Your task to perform on an android device: read, delete, or share a saved page in the chrome app Image 0: 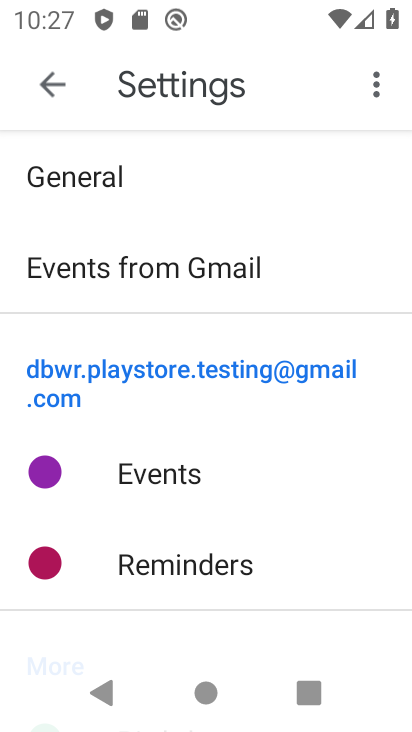
Step 0: press home button
Your task to perform on an android device: read, delete, or share a saved page in the chrome app Image 1: 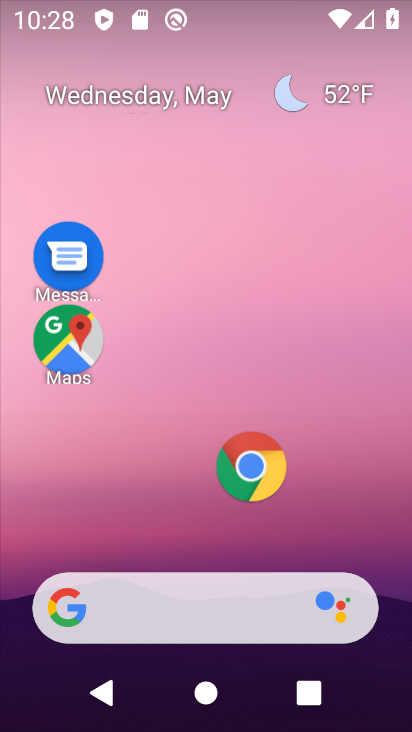
Step 1: click (255, 465)
Your task to perform on an android device: read, delete, or share a saved page in the chrome app Image 2: 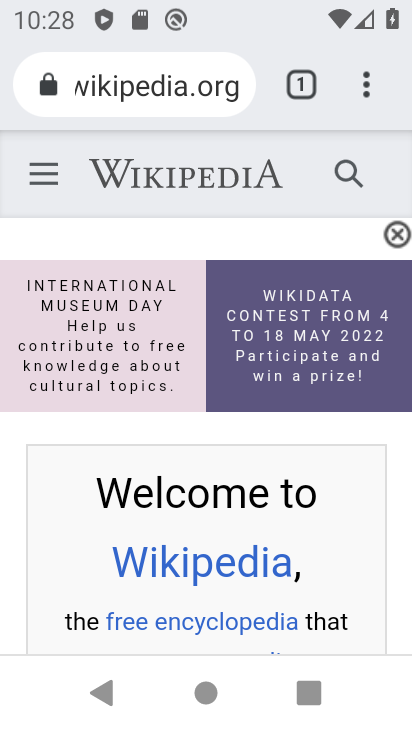
Step 2: click (351, 92)
Your task to perform on an android device: read, delete, or share a saved page in the chrome app Image 3: 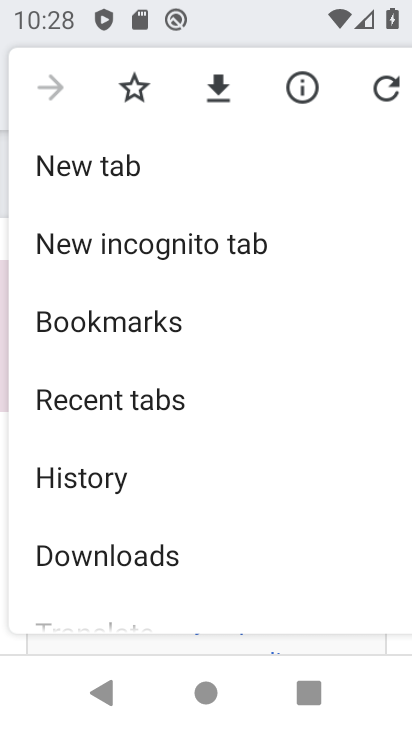
Step 3: drag from (102, 578) to (115, 375)
Your task to perform on an android device: read, delete, or share a saved page in the chrome app Image 4: 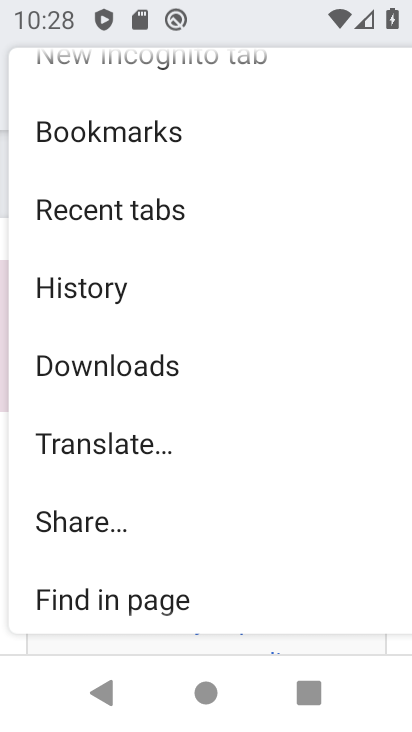
Step 4: click (175, 374)
Your task to perform on an android device: read, delete, or share a saved page in the chrome app Image 5: 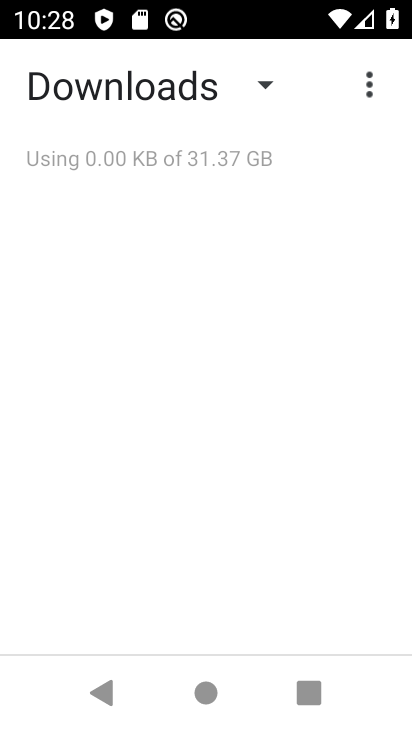
Step 5: task complete